Your task to perform on an android device: remove spam from my inbox in the gmail app Image 0: 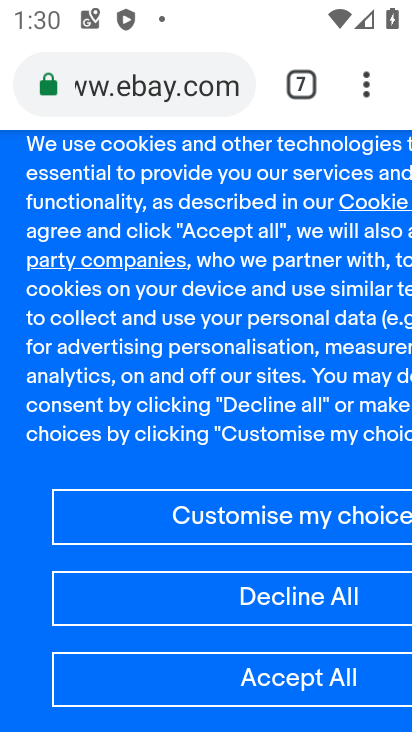
Step 0: press home button
Your task to perform on an android device: remove spam from my inbox in the gmail app Image 1: 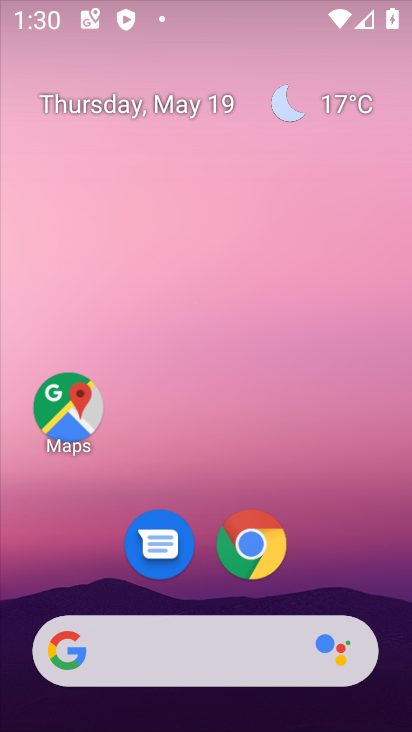
Step 1: drag from (218, 726) to (228, 373)
Your task to perform on an android device: remove spam from my inbox in the gmail app Image 2: 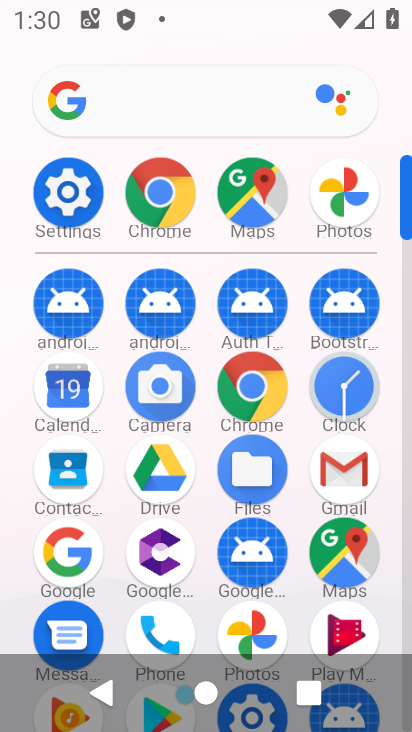
Step 2: click (340, 483)
Your task to perform on an android device: remove spam from my inbox in the gmail app Image 3: 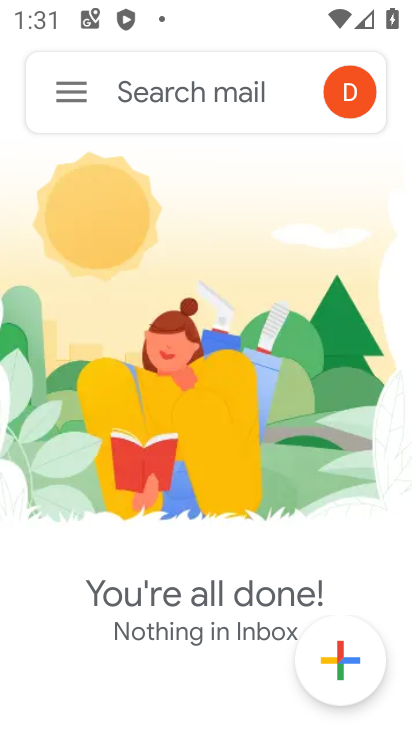
Step 3: task complete